Your task to perform on an android device: set the stopwatch Image 0: 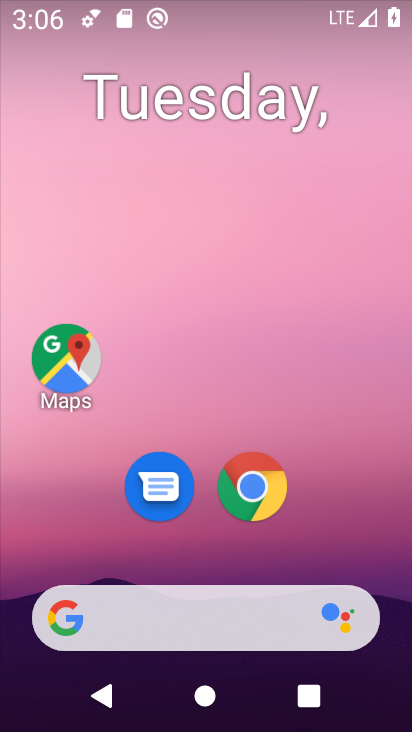
Step 0: drag from (377, 542) to (382, 38)
Your task to perform on an android device: set the stopwatch Image 1: 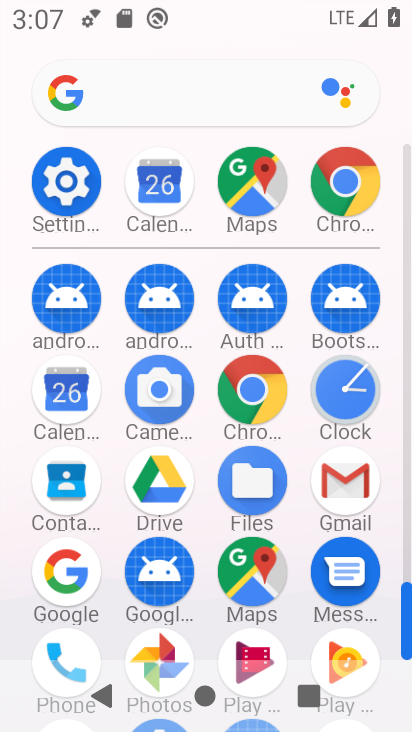
Step 1: click (350, 382)
Your task to perform on an android device: set the stopwatch Image 2: 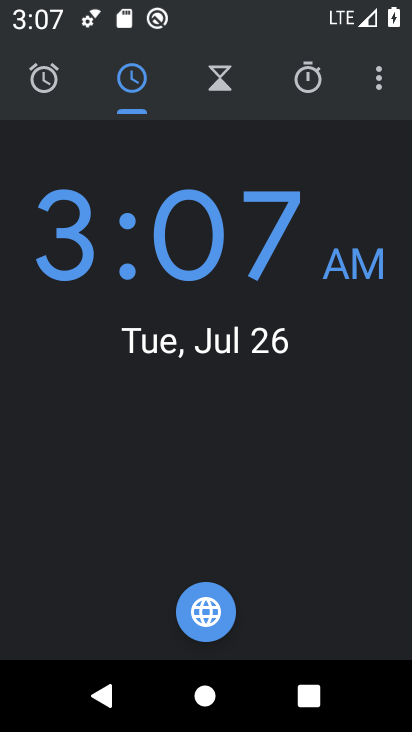
Step 2: click (309, 82)
Your task to perform on an android device: set the stopwatch Image 3: 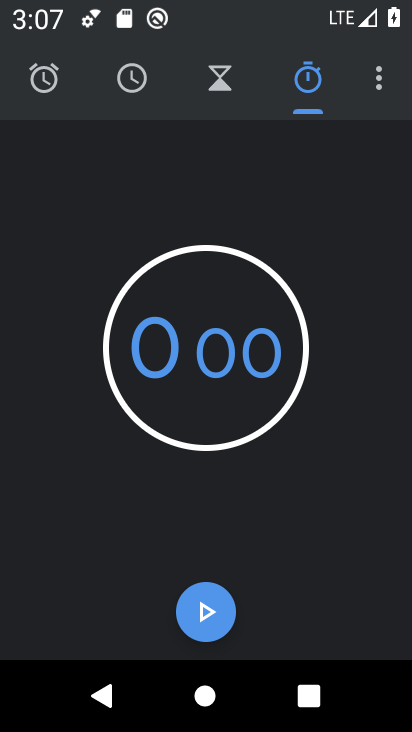
Step 3: click (216, 620)
Your task to perform on an android device: set the stopwatch Image 4: 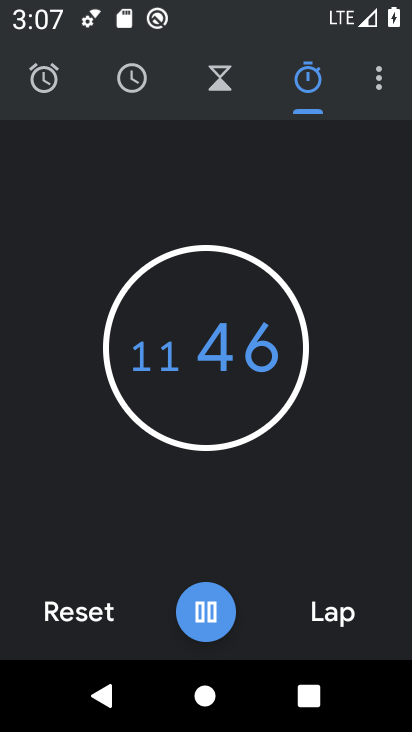
Step 4: task complete